Your task to perform on an android device: stop showing notifications on the lock screen Image 0: 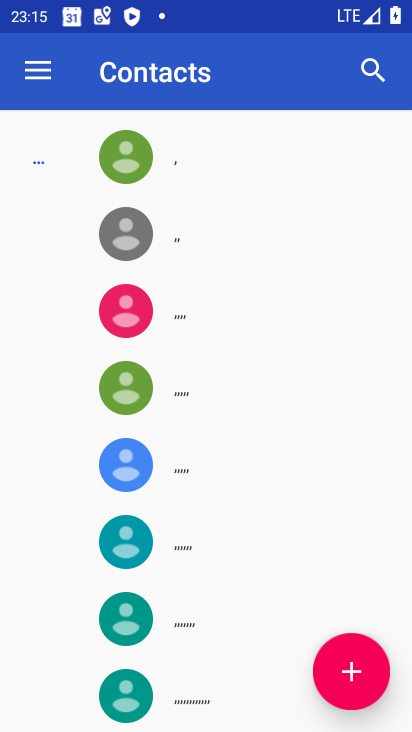
Step 0: press home button
Your task to perform on an android device: stop showing notifications on the lock screen Image 1: 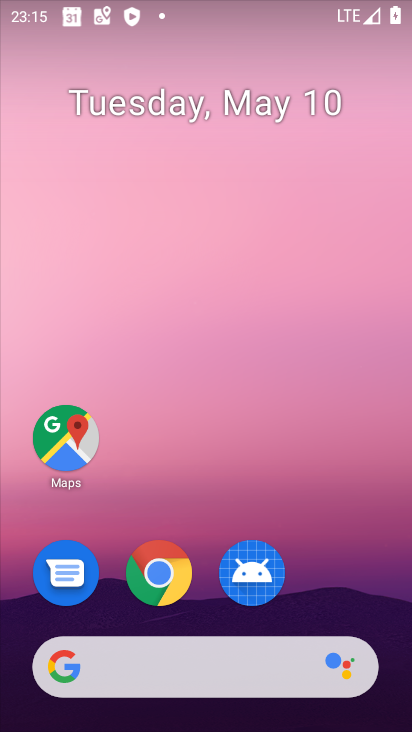
Step 1: drag from (260, 475) to (89, 40)
Your task to perform on an android device: stop showing notifications on the lock screen Image 2: 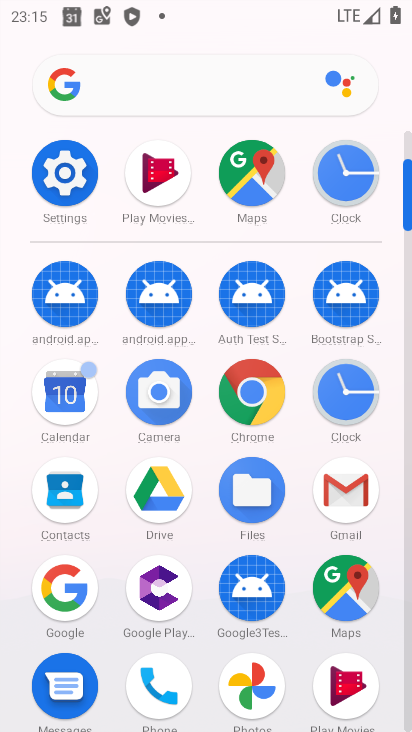
Step 2: click (60, 174)
Your task to perform on an android device: stop showing notifications on the lock screen Image 3: 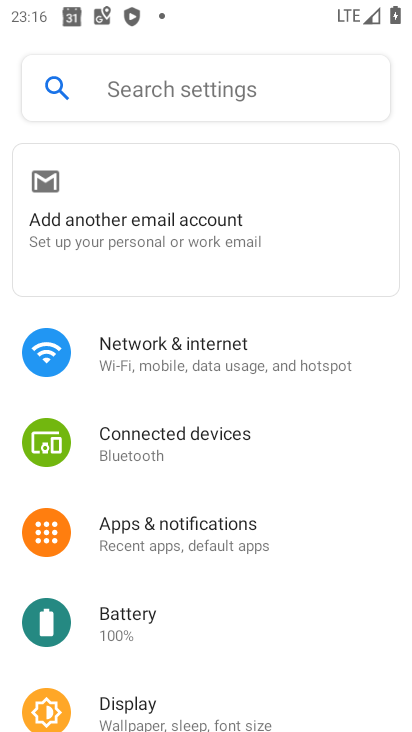
Step 3: click (182, 522)
Your task to perform on an android device: stop showing notifications on the lock screen Image 4: 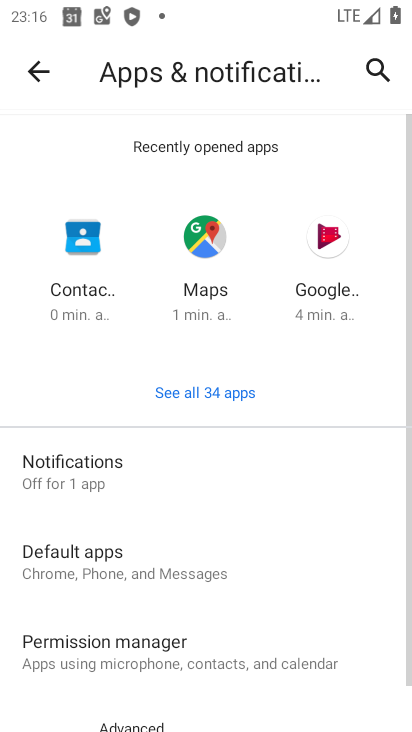
Step 4: click (93, 473)
Your task to perform on an android device: stop showing notifications on the lock screen Image 5: 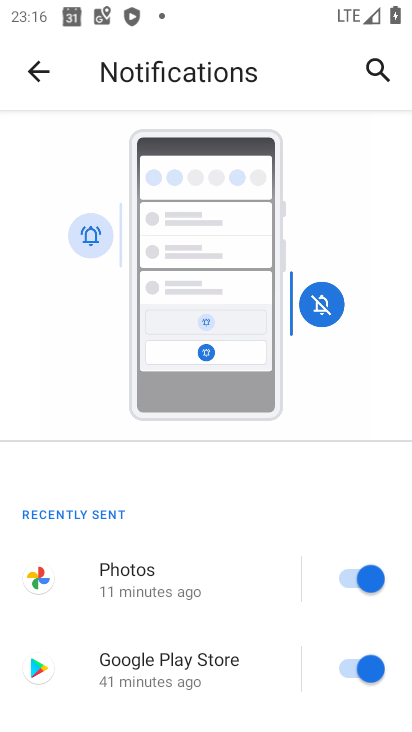
Step 5: drag from (263, 494) to (202, 168)
Your task to perform on an android device: stop showing notifications on the lock screen Image 6: 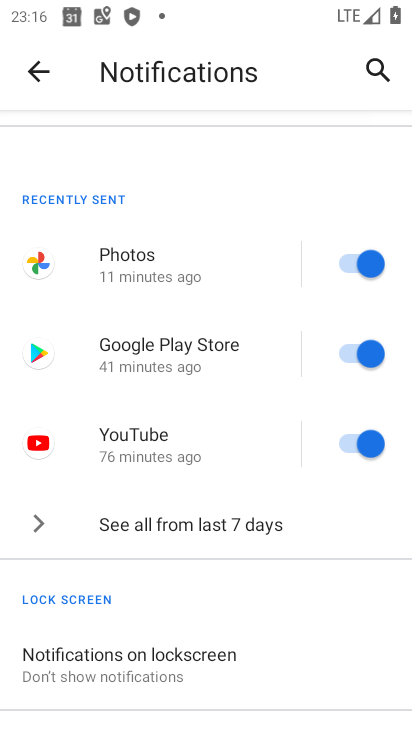
Step 6: drag from (253, 583) to (239, 315)
Your task to perform on an android device: stop showing notifications on the lock screen Image 7: 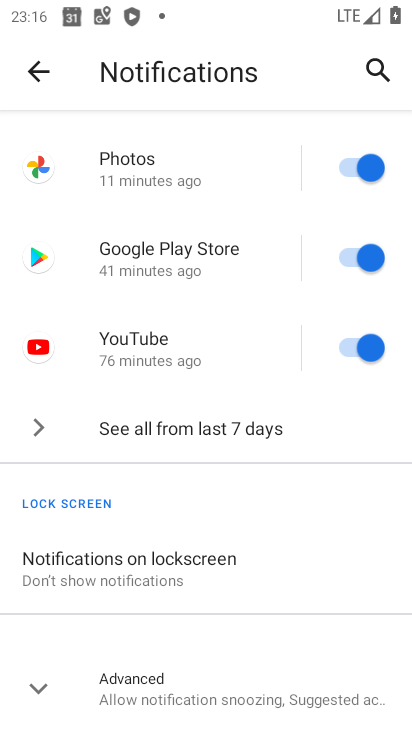
Step 7: click (138, 552)
Your task to perform on an android device: stop showing notifications on the lock screen Image 8: 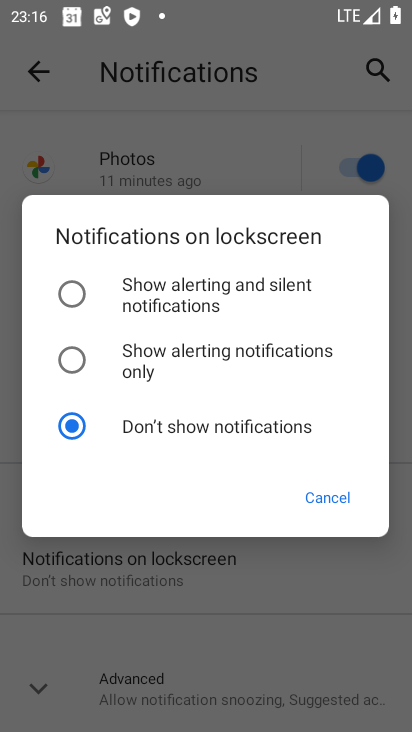
Step 8: task complete